Your task to perform on an android device: Open wifi settings Image 0: 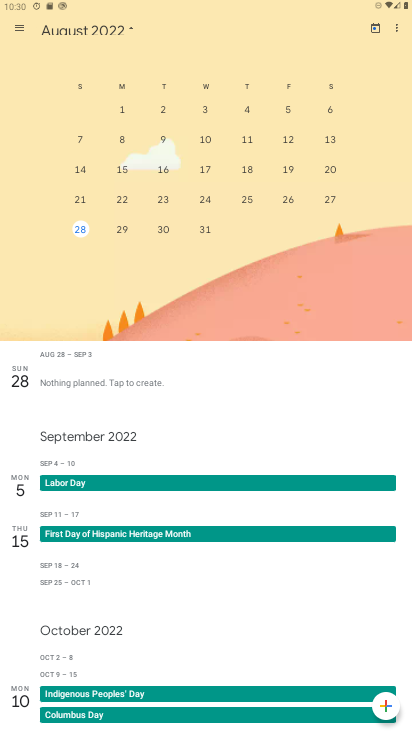
Step 0: press home button
Your task to perform on an android device: Open wifi settings Image 1: 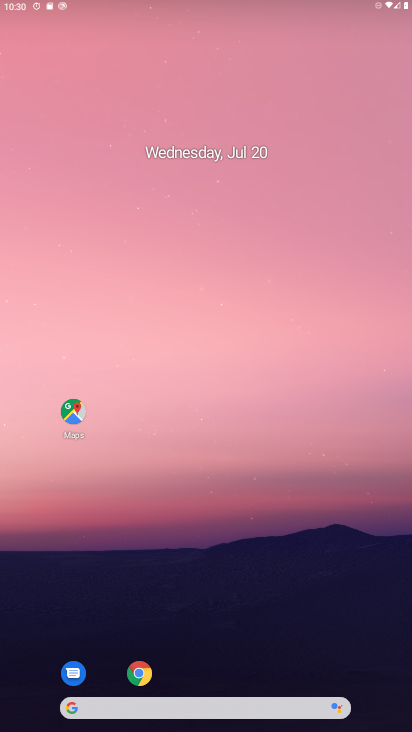
Step 1: drag from (372, 657) to (155, 98)
Your task to perform on an android device: Open wifi settings Image 2: 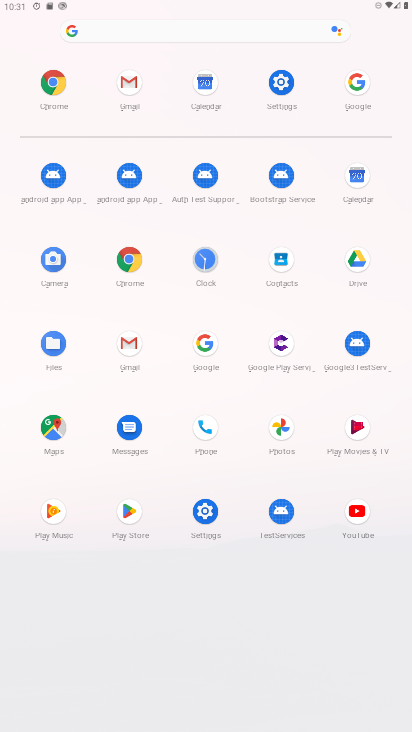
Step 2: click (205, 516)
Your task to perform on an android device: Open wifi settings Image 3: 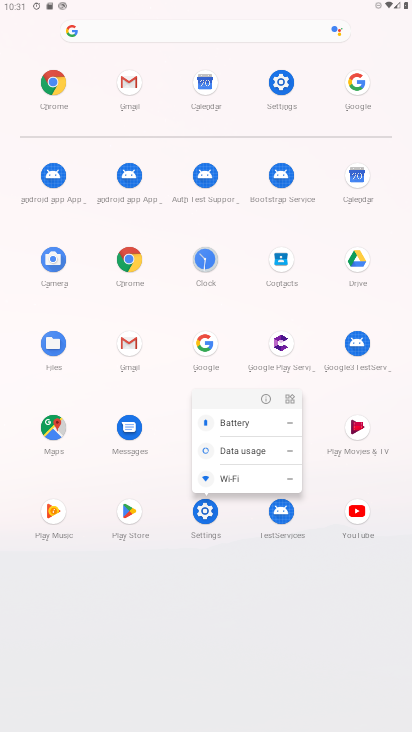
Step 3: click (205, 516)
Your task to perform on an android device: Open wifi settings Image 4: 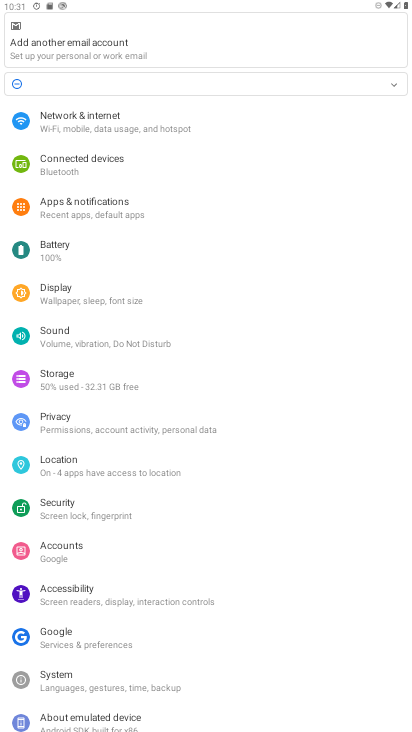
Step 4: click (110, 121)
Your task to perform on an android device: Open wifi settings Image 5: 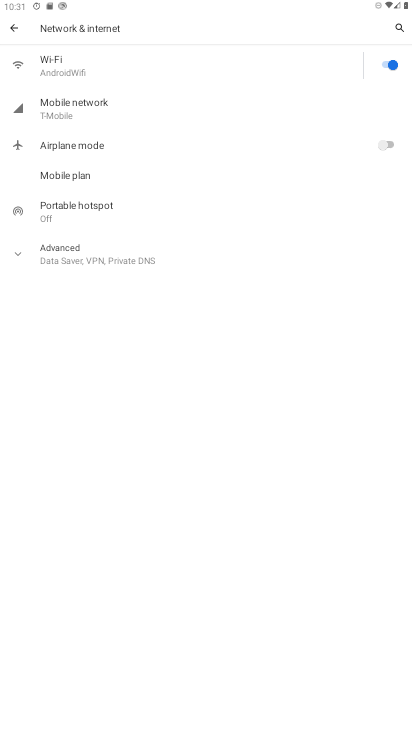
Step 5: click (68, 52)
Your task to perform on an android device: Open wifi settings Image 6: 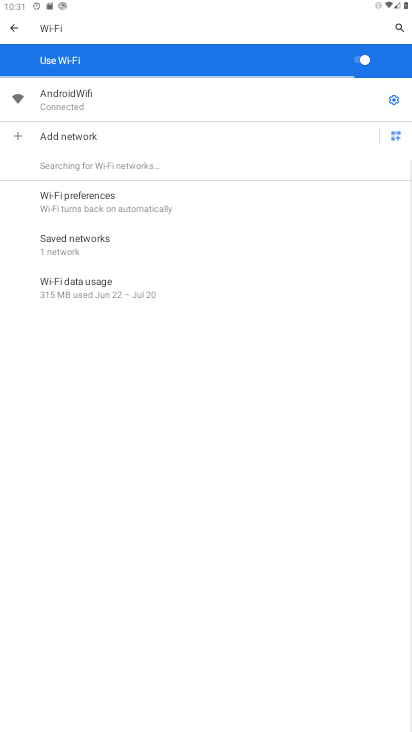
Step 6: task complete